Your task to perform on an android device: Go to wifi settings Image 0: 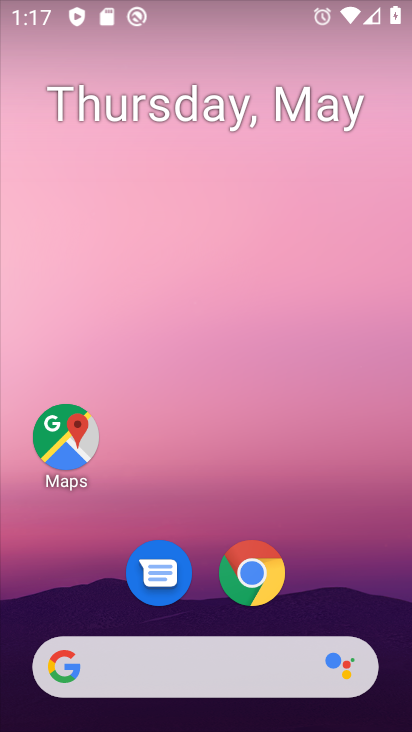
Step 0: drag from (390, 559) to (332, 199)
Your task to perform on an android device: Go to wifi settings Image 1: 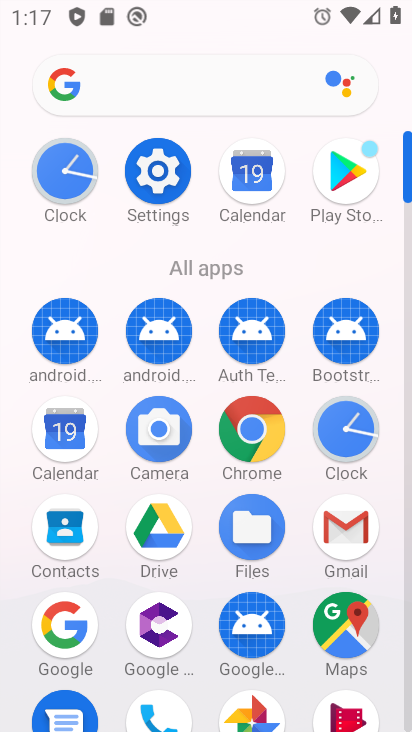
Step 1: click (170, 174)
Your task to perform on an android device: Go to wifi settings Image 2: 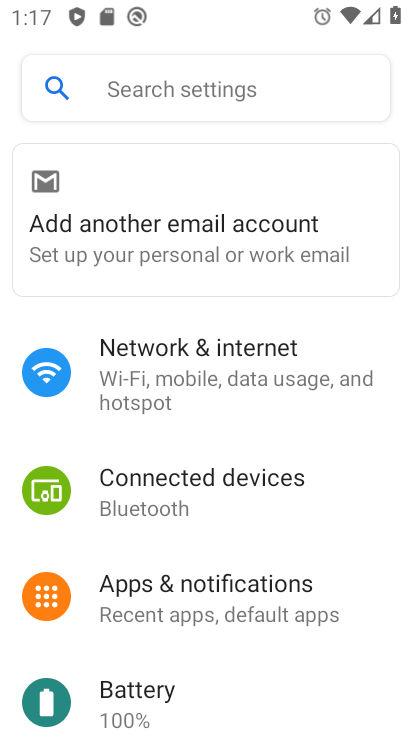
Step 2: click (184, 367)
Your task to perform on an android device: Go to wifi settings Image 3: 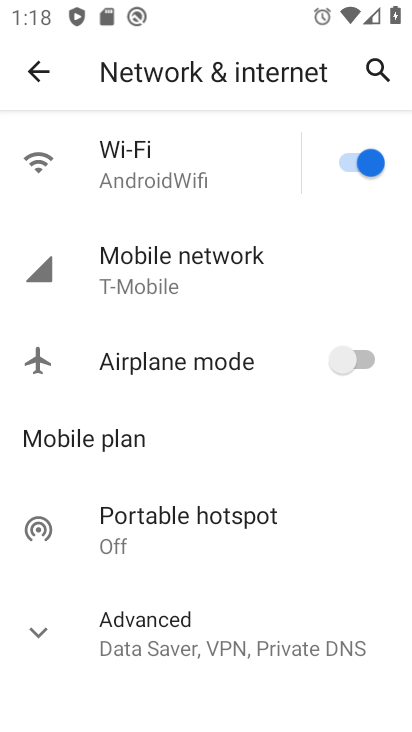
Step 3: click (189, 150)
Your task to perform on an android device: Go to wifi settings Image 4: 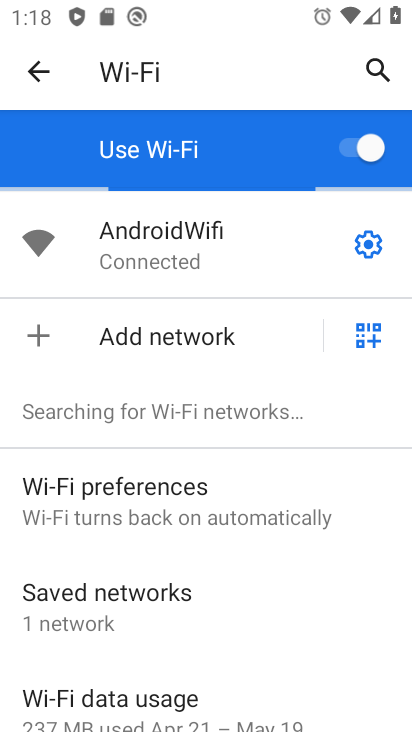
Step 4: click (365, 235)
Your task to perform on an android device: Go to wifi settings Image 5: 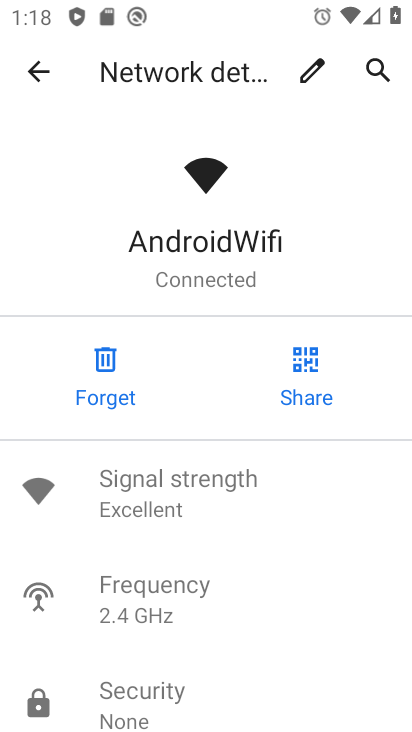
Step 5: task complete